Your task to perform on an android device: delete browsing data in the chrome app Image 0: 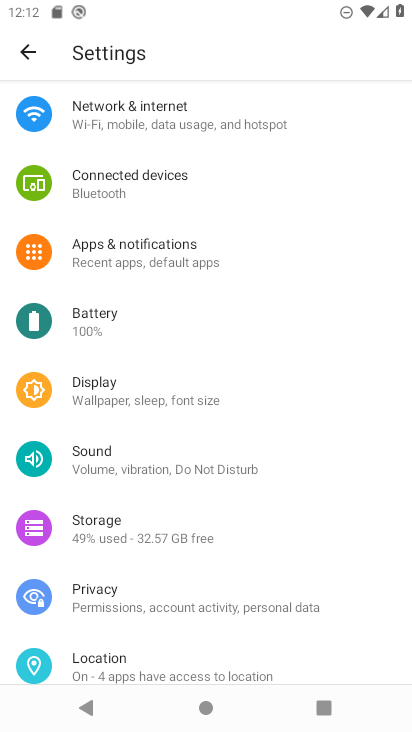
Step 0: press home button
Your task to perform on an android device: delete browsing data in the chrome app Image 1: 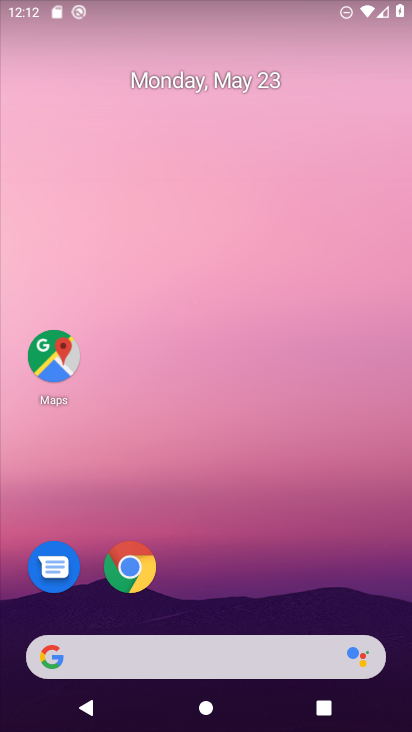
Step 1: click (138, 577)
Your task to perform on an android device: delete browsing data in the chrome app Image 2: 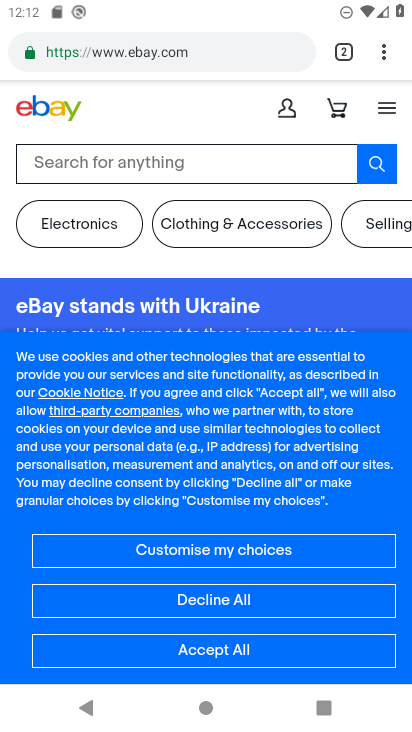
Step 2: click (391, 44)
Your task to perform on an android device: delete browsing data in the chrome app Image 3: 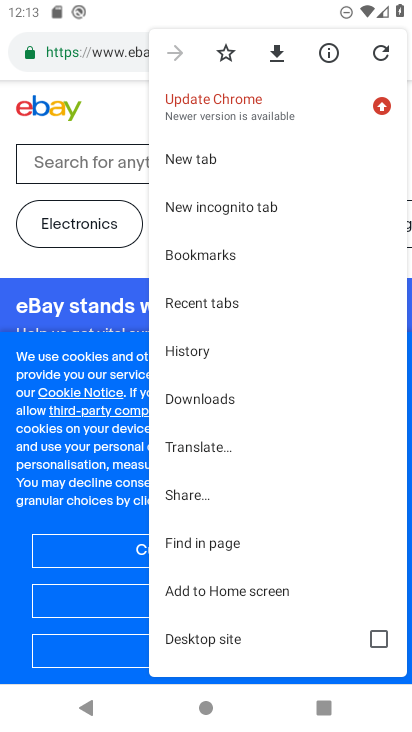
Step 3: click (194, 351)
Your task to perform on an android device: delete browsing data in the chrome app Image 4: 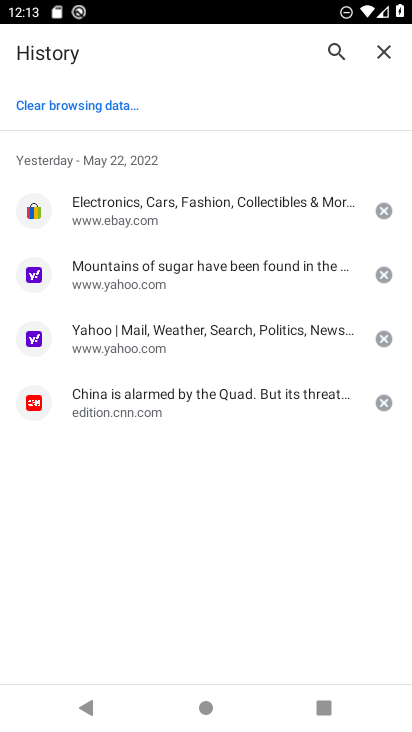
Step 4: click (99, 111)
Your task to perform on an android device: delete browsing data in the chrome app Image 5: 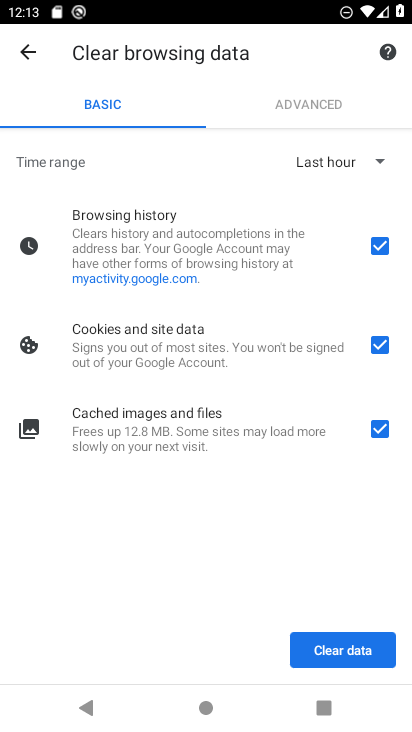
Step 5: click (377, 355)
Your task to perform on an android device: delete browsing data in the chrome app Image 6: 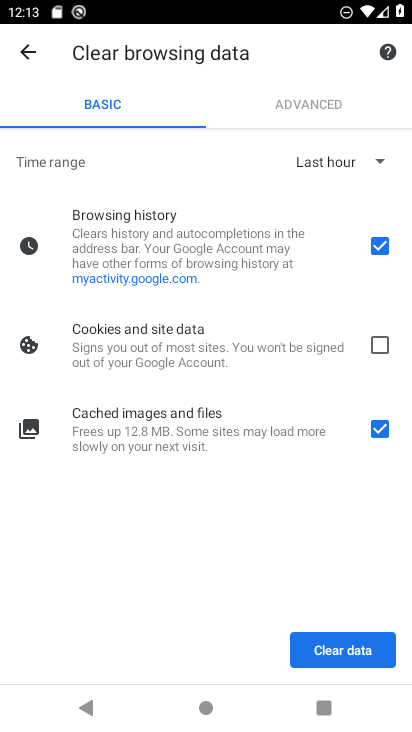
Step 6: click (385, 434)
Your task to perform on an android device: delete browsing data in the chrome app Image 7: 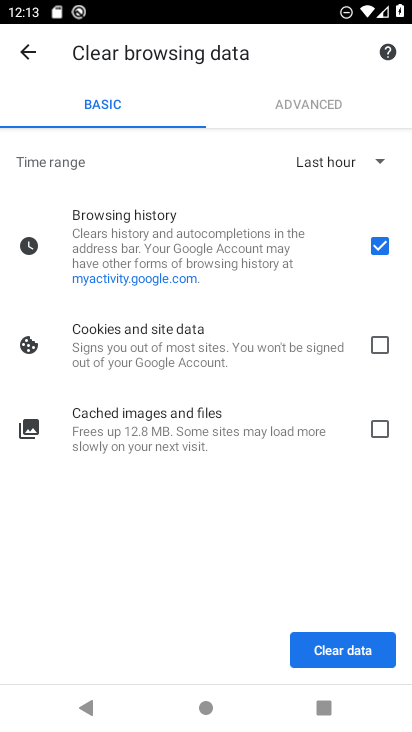
Step 7: click (319, 642)
Your task to perform on an android device: delete browsing data in the chrome app Image 8: 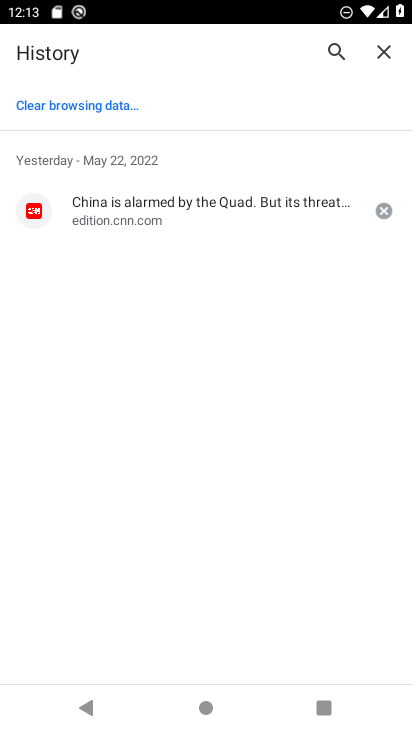
Step 8: task complete